Your task to perform on an android device: Go to display settings Image 0: 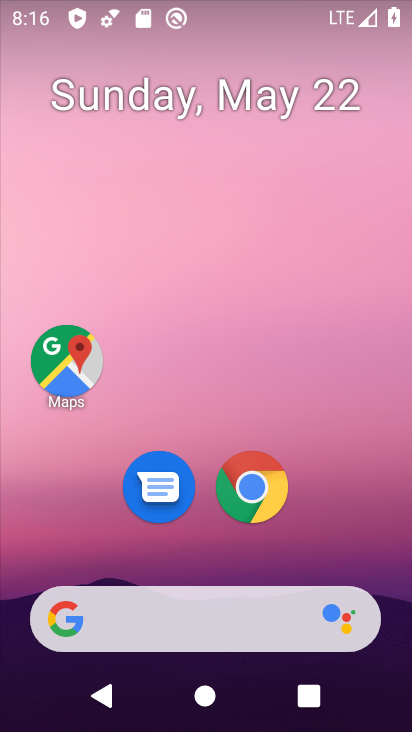
Step 0: drag from (363, 549) to (264, 0)
Your task to perform on an android device: Go to display settings Image 1: 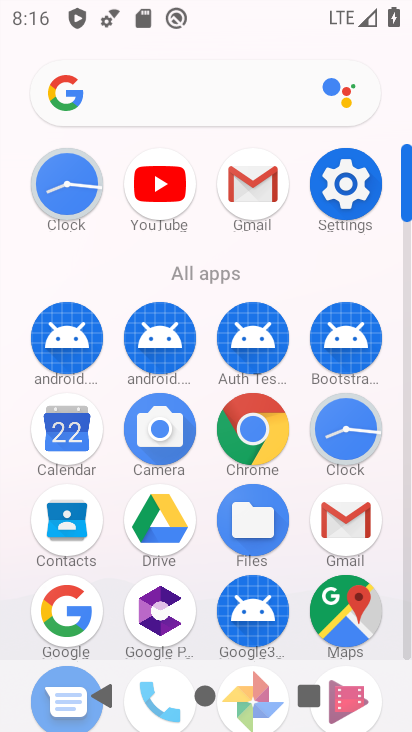
Step 1: click (340, 186)
Your task to perform on an android device: Go to display settings Image 2: 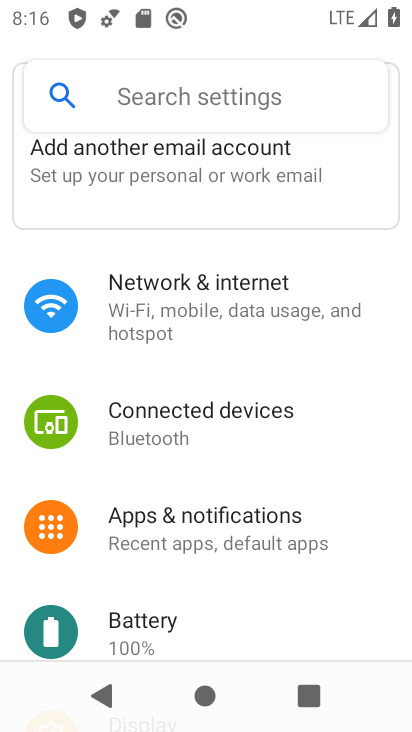
Step 2: drag from (222, 549) to (248, 168)
Your task to perform on an android device: Go to display settings Image 3: 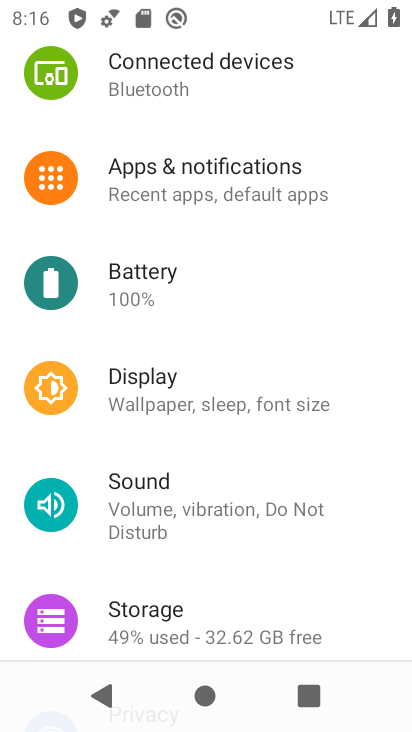
Step 3: click (182, 404)
Your task to perform on an android device: Go to display settings Image 4: 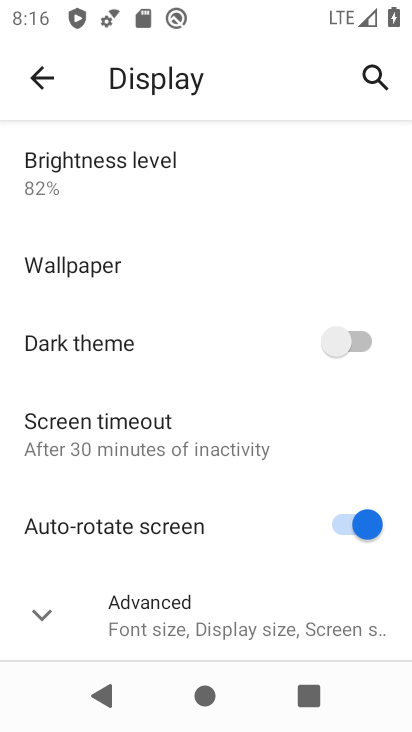
Step 4: task complete